Your task to perform on an android device: turn off improve location accuracy Image 0: 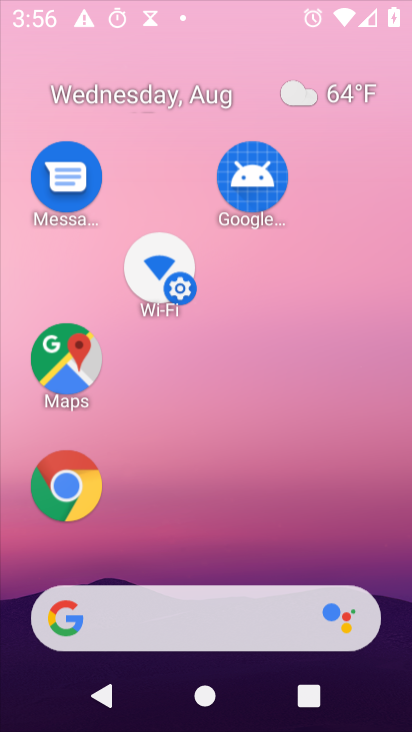
Step 0: press home button
Your task to perform on an android device: turn off improve location accuracy Image 1: 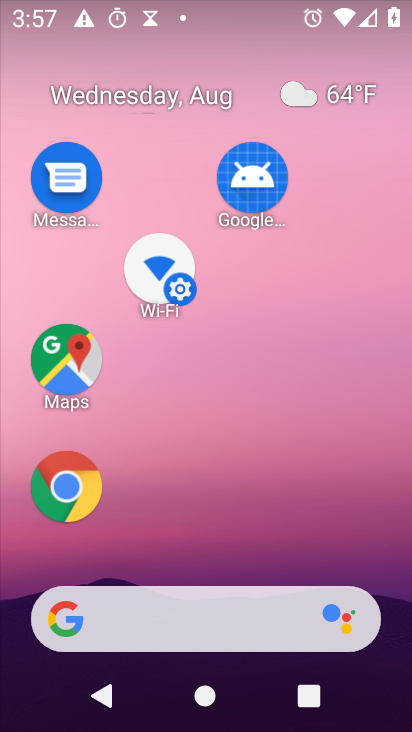
Step 1: drag from (263, 564) to (78, 0)
Your task to perform on an android device: turn off improve location accuracy Image 2: 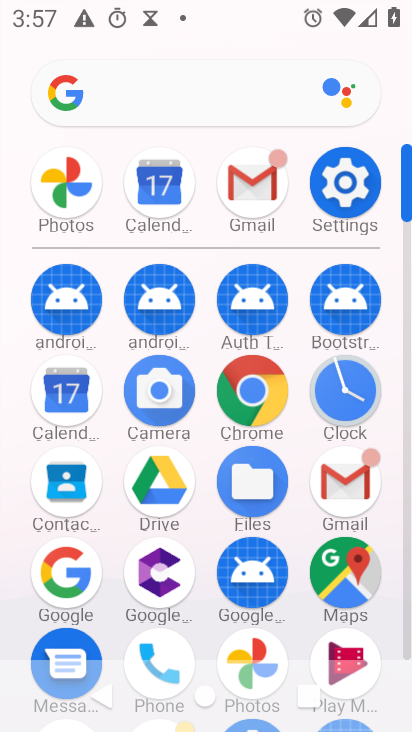
Step 2: click (330, 171)
Your task to perform on an android device: turn off improve location accuracy Image 3: 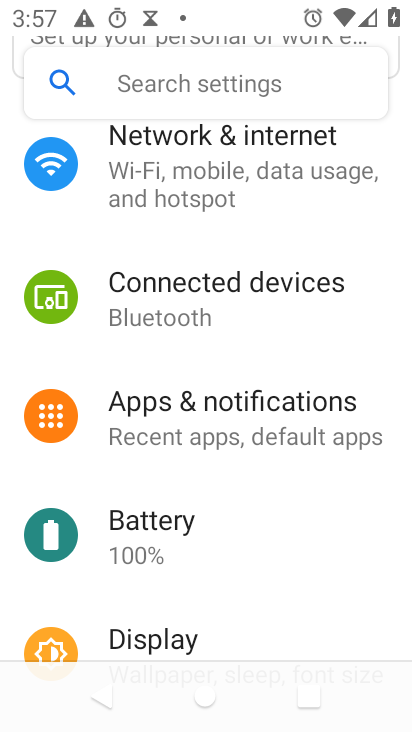
Step 3: drag from (209, 589) to (328, 179)
Your task to perform on an android device: turn off improve location accuracy Image 4: 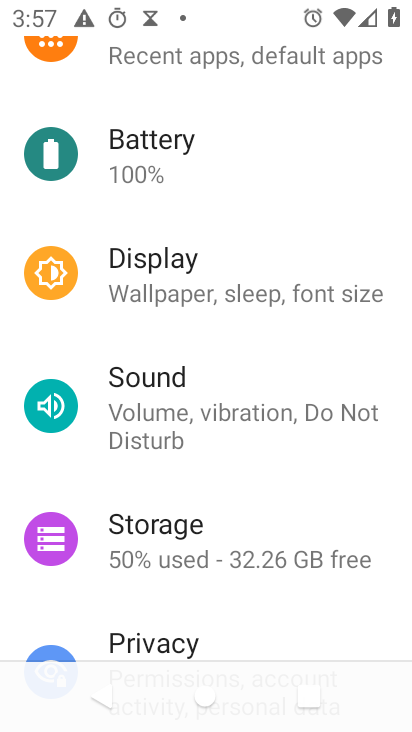
Step 4: drag from (273, 600) to (307, 201)
Your task to perform on an android device: turn off improve location accuracy Image 5: 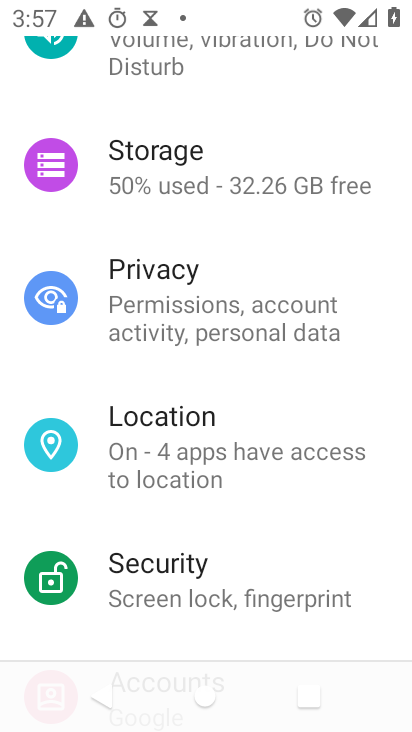
Step 5: click (160, 466)
Your task to perform on an android device: turn off improve location accuracy Image 6: 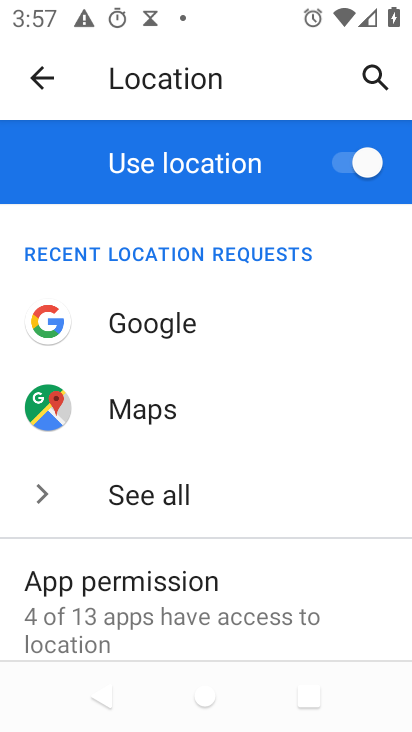
Step 6: drag from (350, 619) to (403, 502)
Your task to perform on an android device: turn off improve location accuracy Image 7: 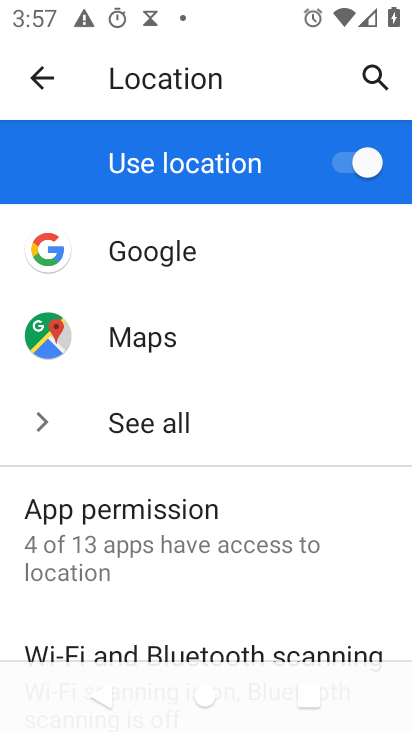
Step 7: drag from (271, 537) to (409, 228)
Your task to perform on an android device: turn off improve location accuracy Image 8: 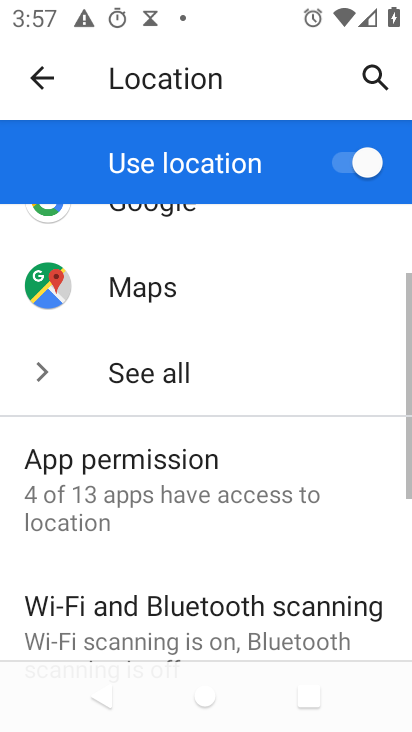
Step 8: drag from (304, 577) to (388, 143)
Your task to perform on an android device: turn off improve location accuracy Image 9: 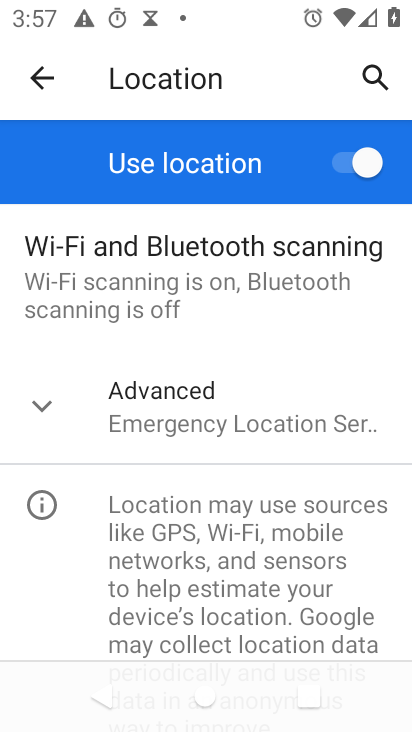
Step 9: click (191, 413)
Your task to perform on an android device: turn off improve location accuracy Image 10: 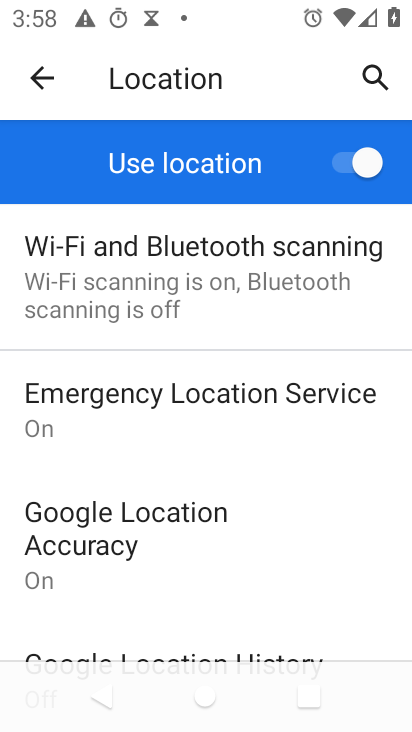
Step 10: drag from (253, 583) to (296, 380)
Your task to perform on an android device: turn off improve location accuracy Image 11: 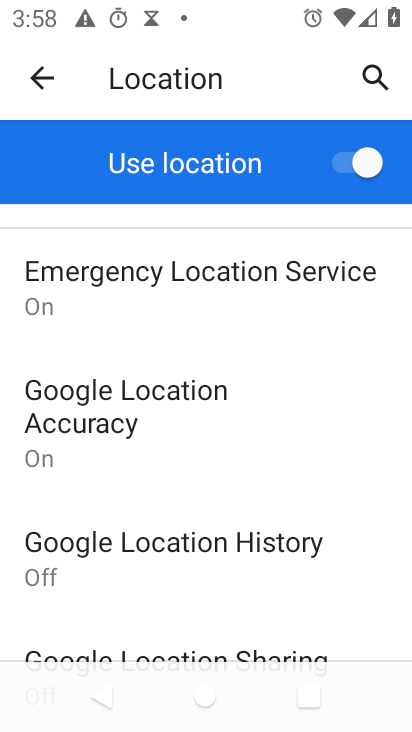
Step 11: click (49, 438)
Your task to perform on an android device: turn off improve location accuracy Image 12: 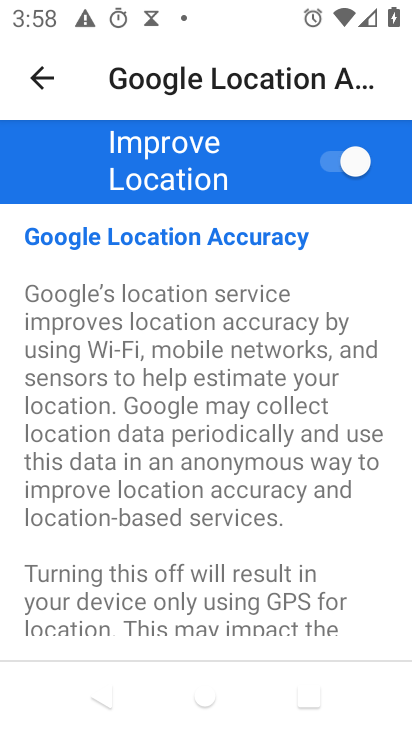
Step 12: click (349, 166)
Your task to perform on an android device: turn off improve location accuracy Image 13: 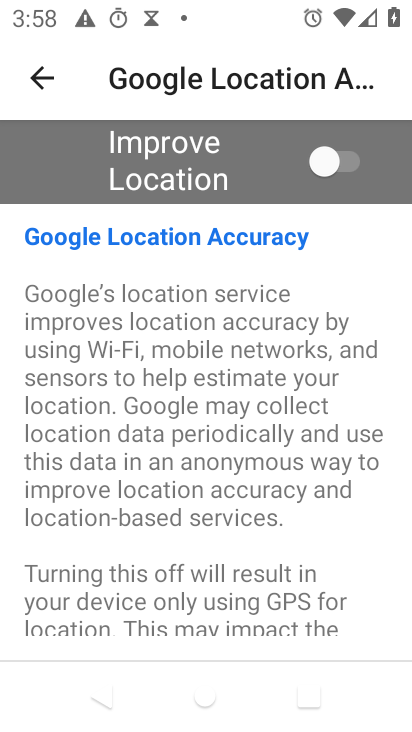
Step 13: task complete